Your task to perform on an android device: Go to sound settings Image 0: 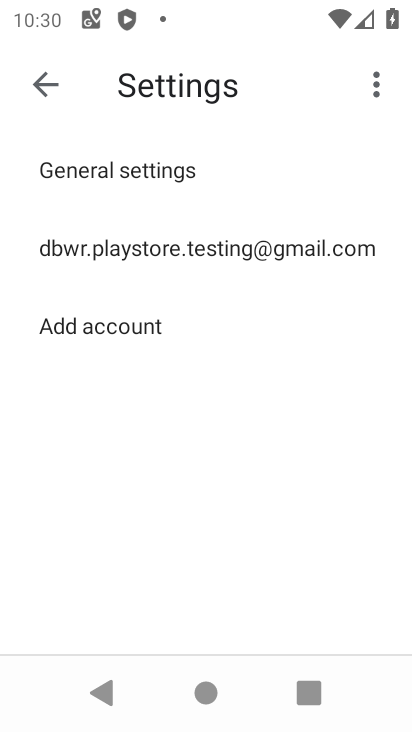
Step 0: drag from (252, 601) to (328, 130)
Your task to perform on an android device: Go to sound settings Image 1: 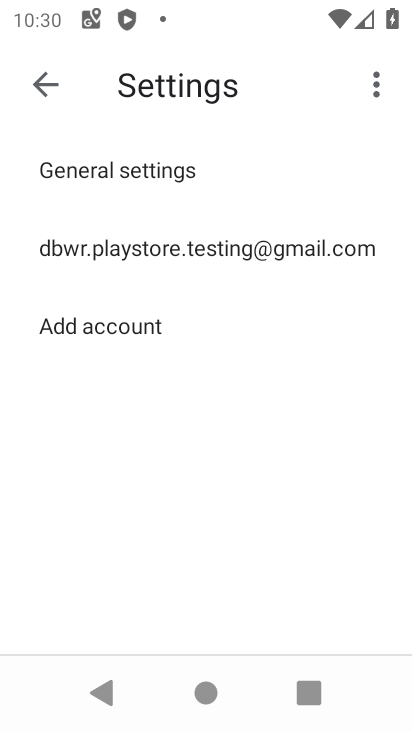
Step 1: press home button
Your task to perform on an android device: Go to sound settings Image 2: 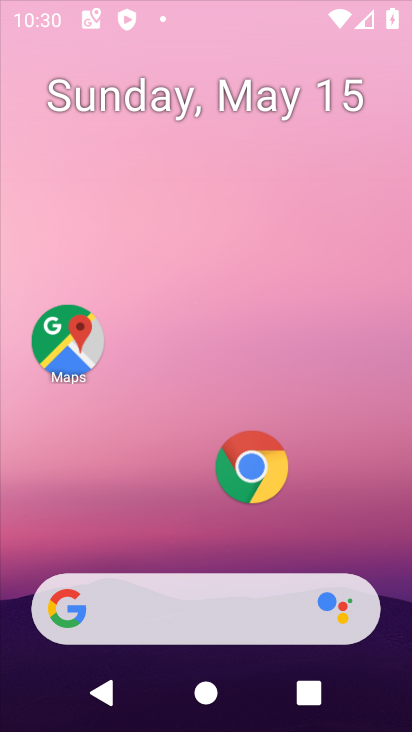
Step 2: drag from (180, 566) to (218, 83)
Your task to perform on an android device: Go to sound settings Image 3: 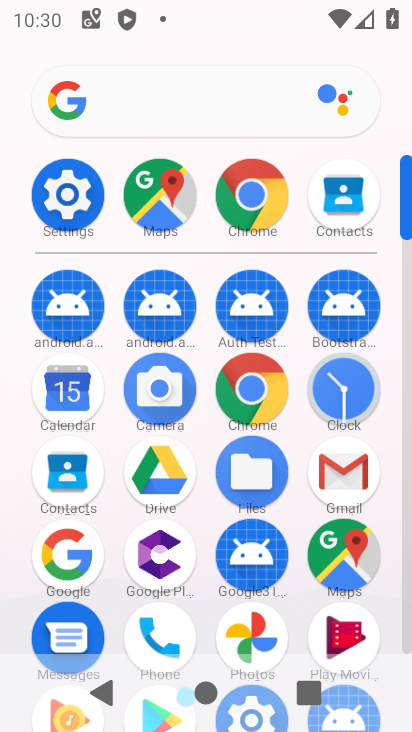
Step 3: click (69, 193)
Your task to perform on an android device: Go to sound settings Image 4: 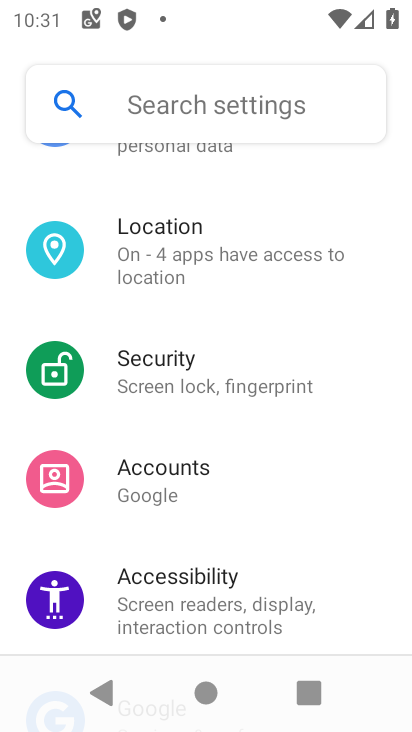
Step 4: drag from (260, 564) to (362, 182)
Your task to perform on an android device: Go to sound settings Image 5: 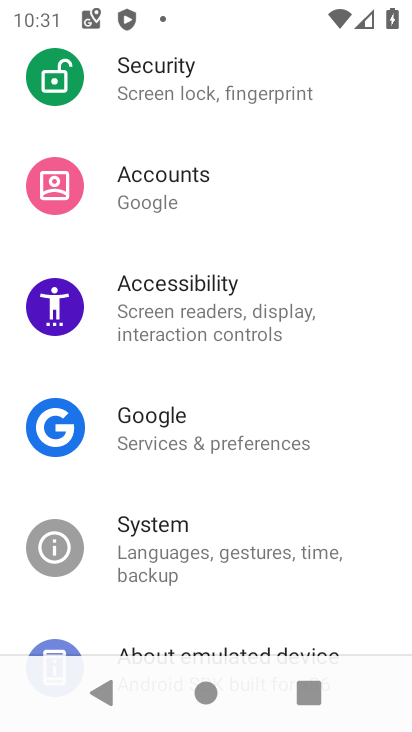
Step 5: drag from (232, 560) to (270, 180)
Your task to perform on an android device: Go to sound settings Image 6: 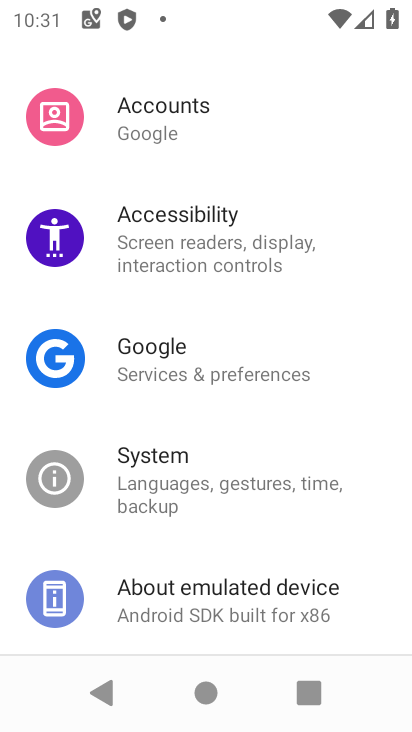
Step 6: drag from (241, 592) to (250, 291)
Your task to perform on an android device: Go to sound settings Image 7: 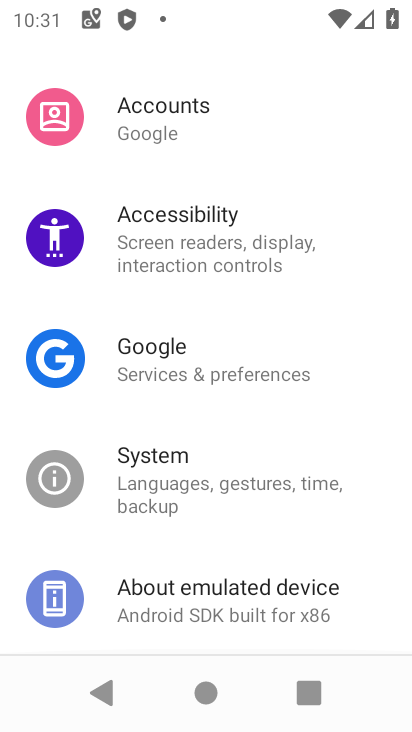
Step 7: drag from (262, 200) to (270, 673)
Your task to perform on an android device: Go to sound settings Image 8: 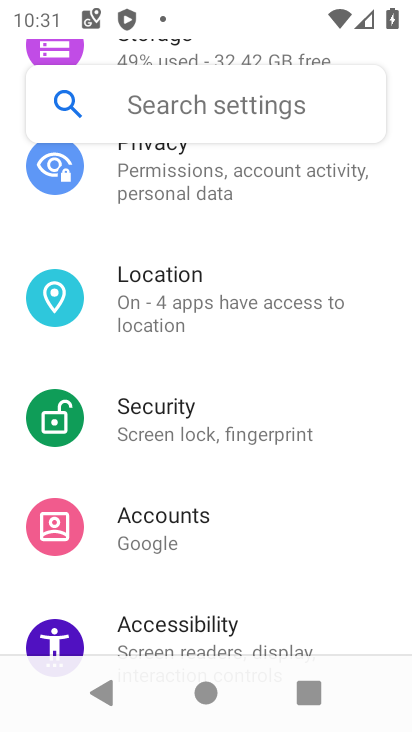
Step 8: drag from (210, 480) to (288, 702)
Your task to perform on an android device: Go to sound settings Image 9: 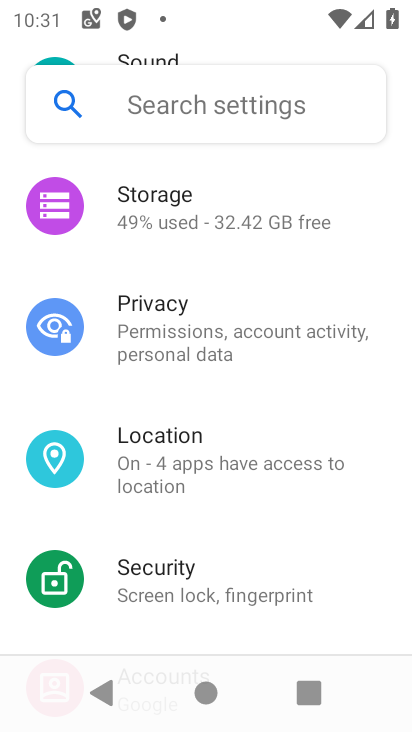
Step 9: drag from (295, 312) to (279, 664)
Your task to perform on an android device: Go to sound settings Image 10: 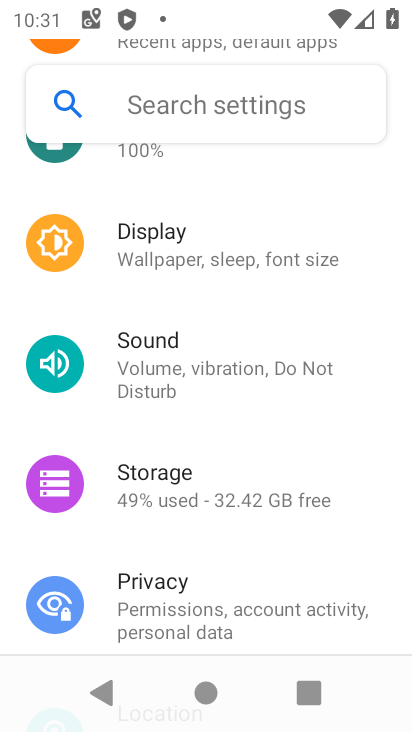
Step 10: click (176, 338)
Your task to perform on an android device: Go to sound settings Image 11: 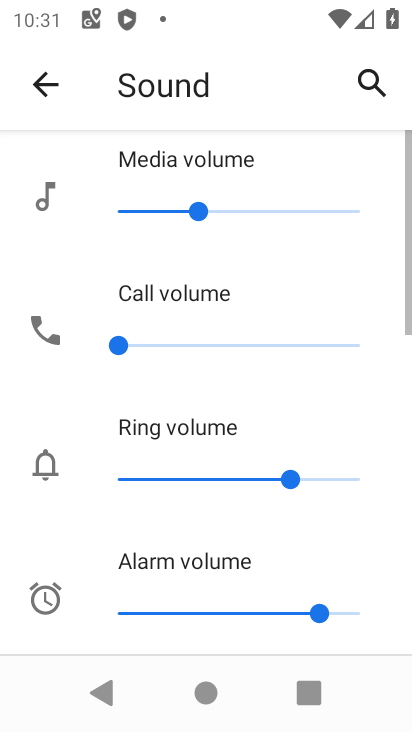
Step 11: task complete